Your task to perform on an android device: add a label to a message in the gmail app Image 0: 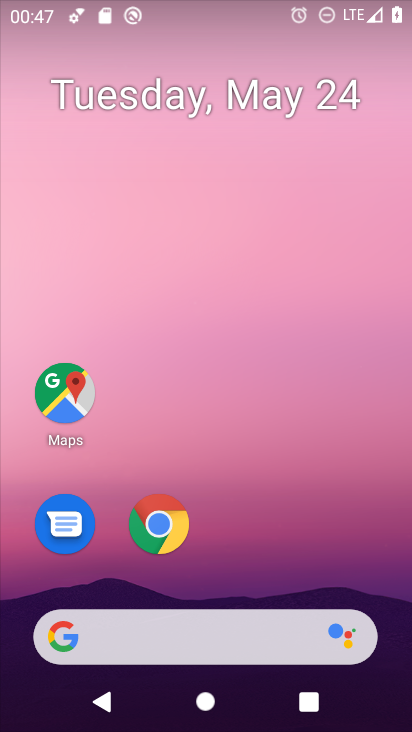
Step 0: drag from (231, 573) to (192, 174)
Your task to perform on an android device: add a label to a message in the gmail app Image 1: 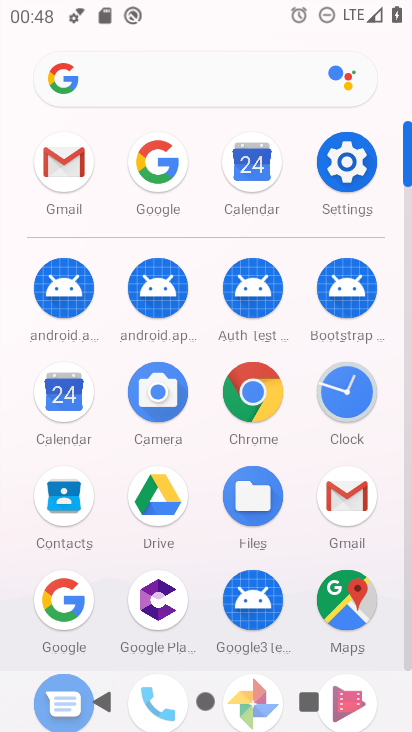
Step 1: click (64, 171)
Your task to perform on an android device: add a label to a message in the gmail app Image 2: 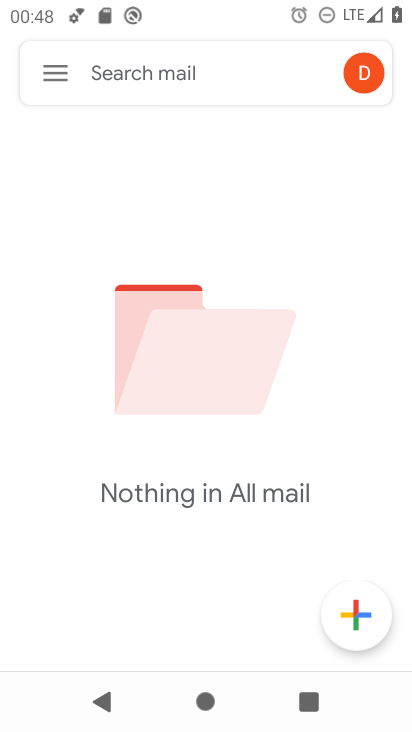
Step 2: click (65, 72)
Your task to perform on an android device: add a label to a message in the gmail app Image 3: 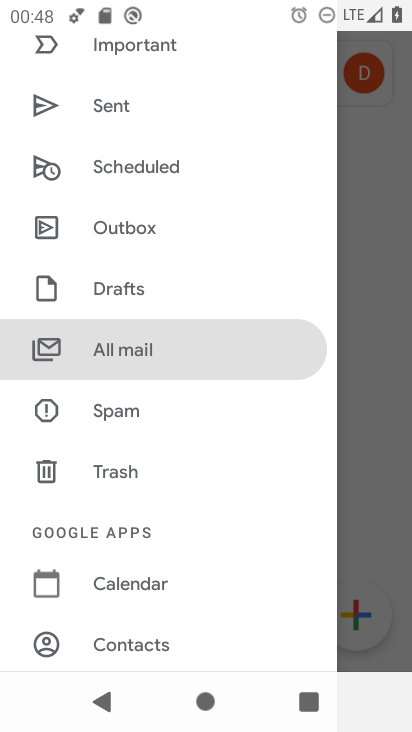
Step 3: click (154, 335)
Your task to perform on an android device: add a label to a message in the gmail app Image 4: 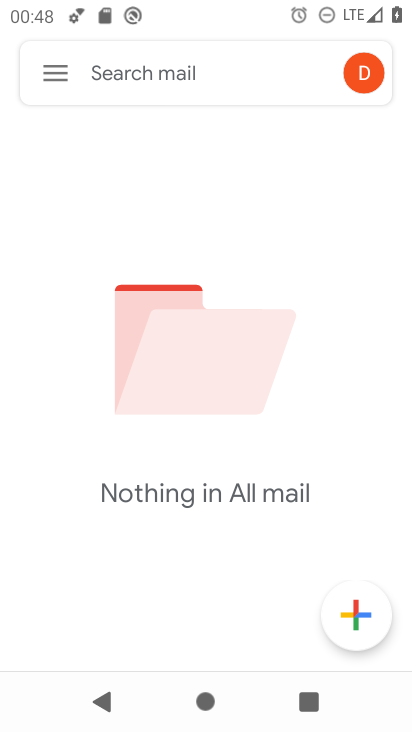
Step 4: task complete